Your task to perform on an android device: check storage Image 0: 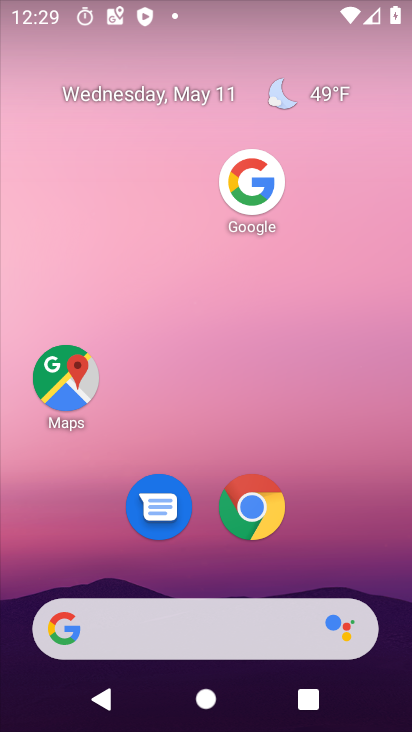
Step 0: drag from (213, 575) to (199, 92)
Your task to perform on an android device: check storage Image 1: 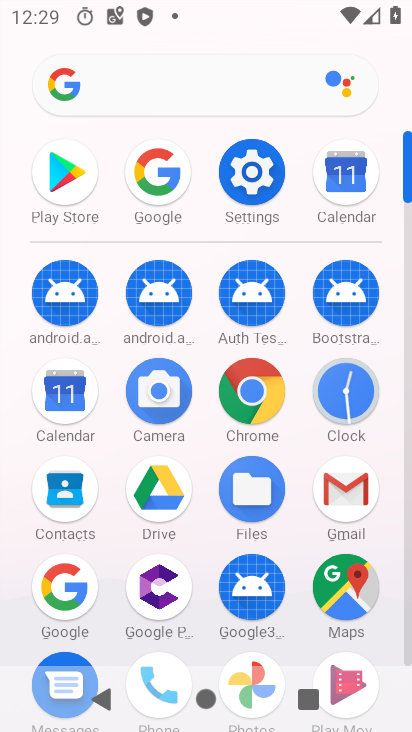
Step 1: click (245, 176)
Your task to perform on an android device: check storage Image 2: 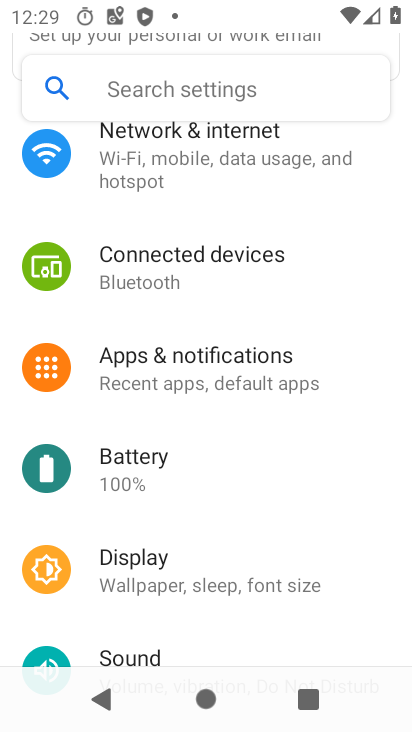
Step 2: drag from (235, 187) to (210, 526)
Your task to perform on an android device: check storage Image 3: 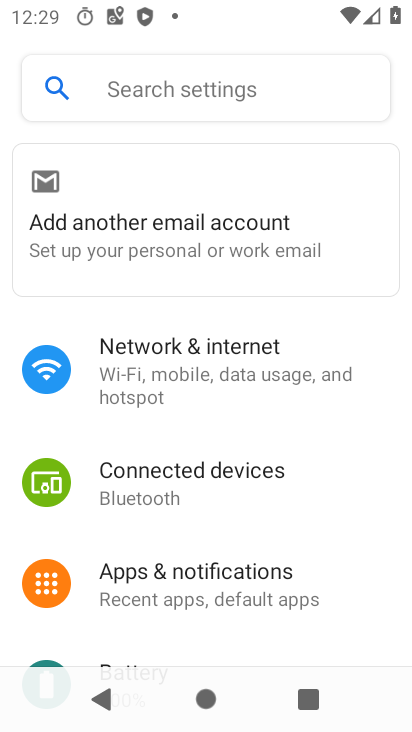
Step 3: drag from (185, 585) to (211, 271)
Your task to perform on an android device: check storage Image 4: 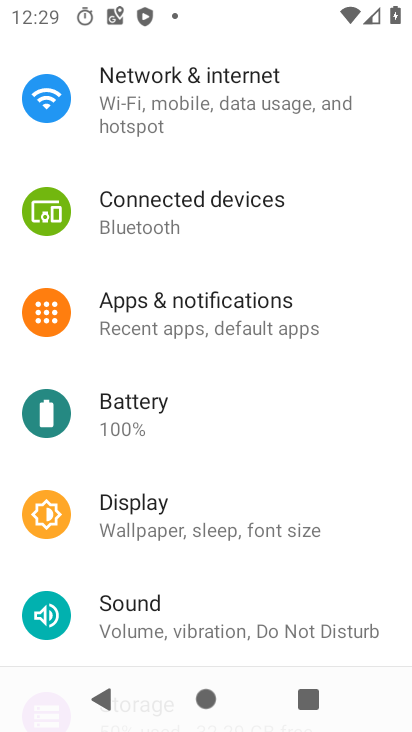
Step 4: drag from (182, 611) to (187, 384)
Your task to perform on an android device: check storage Image 5: 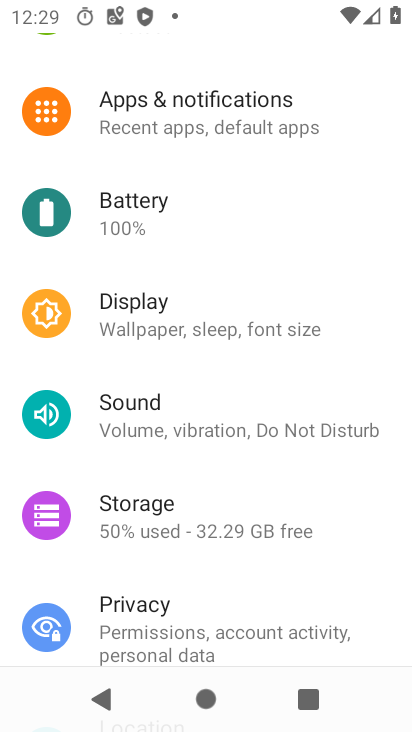
Step 5: click (177, 512)
Your task to perform on an android device: check storage Image 6: 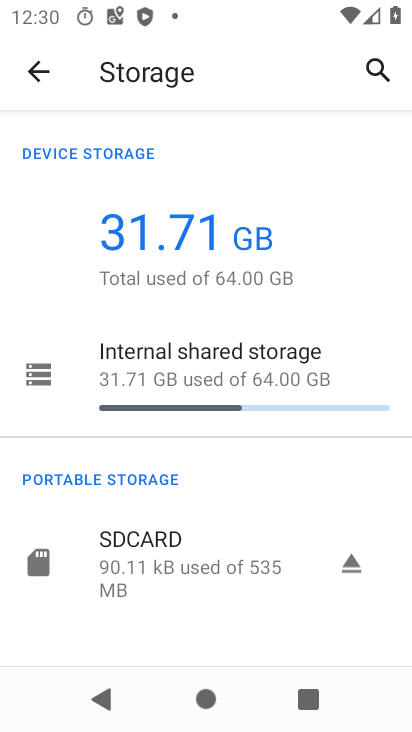
Step 6: task complete